Your task to perform on an android device: visit the assistant section in the google photos Image 0: 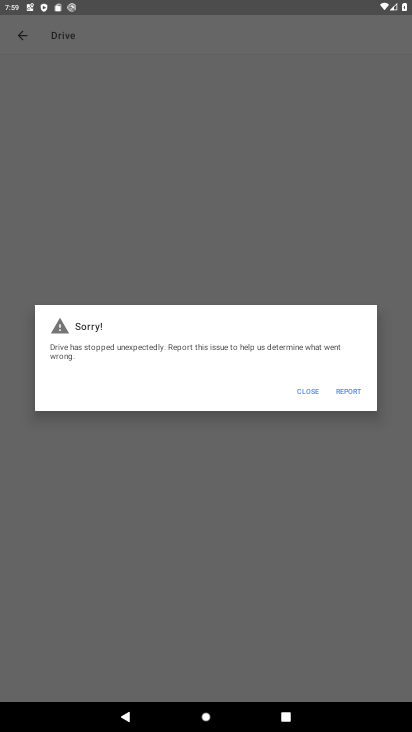
Step 0: press home button
Your task to perform on an android device: visit the assistant section in the google photos Image 1: 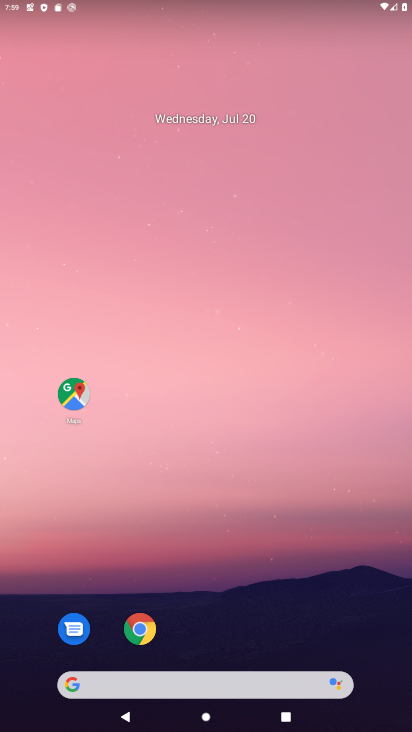
Step 1: drag from (197, 614) to (222, 249)
Your task to perform on an android device: visit the assistant section in the google photos Image 2: 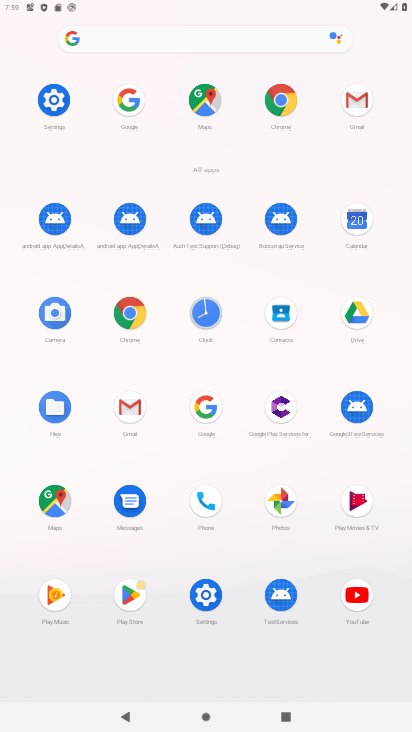
Step 2: click (282, 504)
Your task to perform on an android device: visit the assistant section in the google photos Image 3: 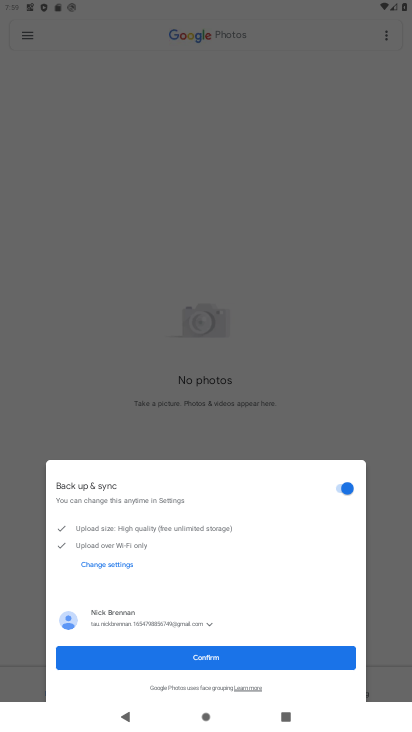
Step 3: click (197, 644)
Your task to perform on an android device: visit the assistant section in the google photos Image 4: 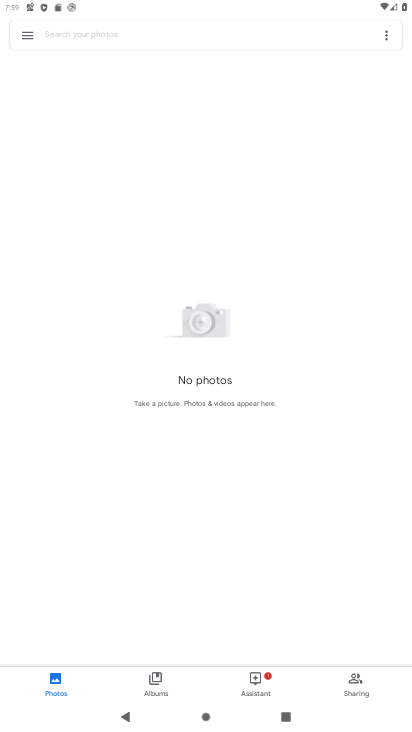
Step 4: click (254, 690)
Your task to perform on an android device: visit the assistant section in the google photos Image 5: 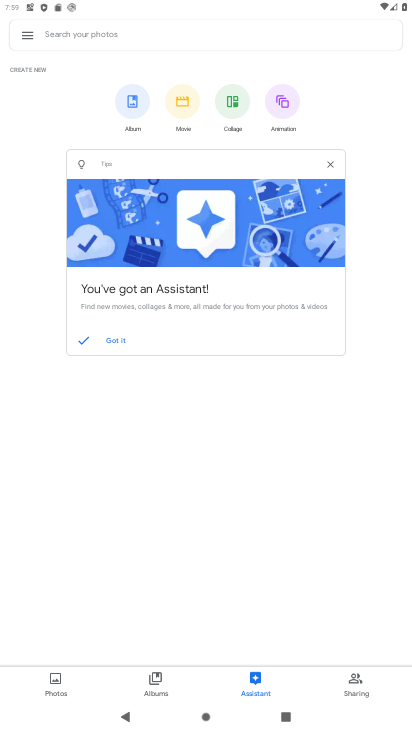
Step 5: task complete